Your task to perform on an android device: open app "Gmail" (install if not already installed) Image 0: 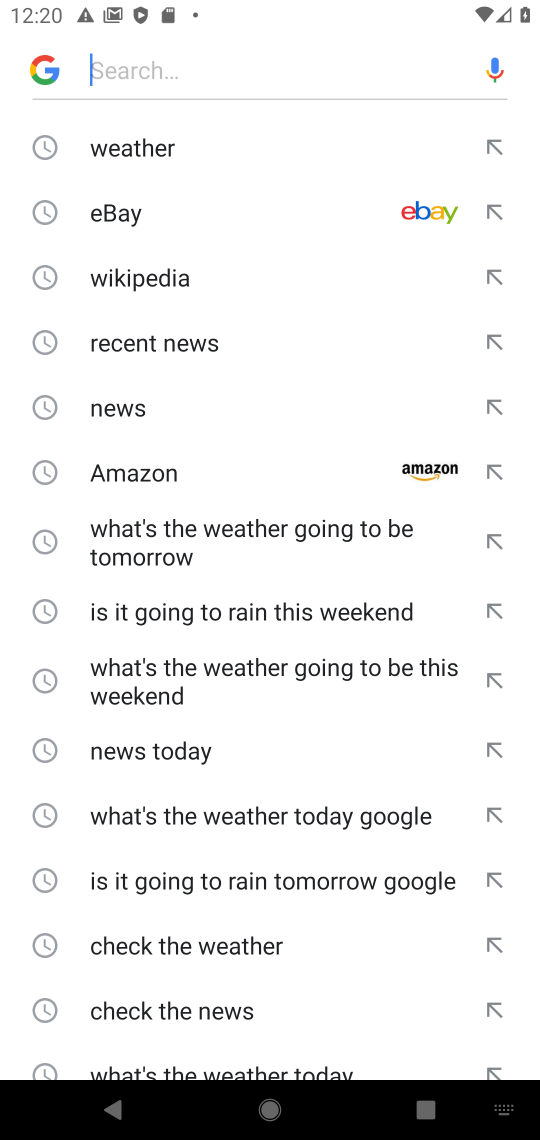
Step 0: press back button
Your task to perform on an android device: open app "Gmail" (install if not already installed) Image 1: 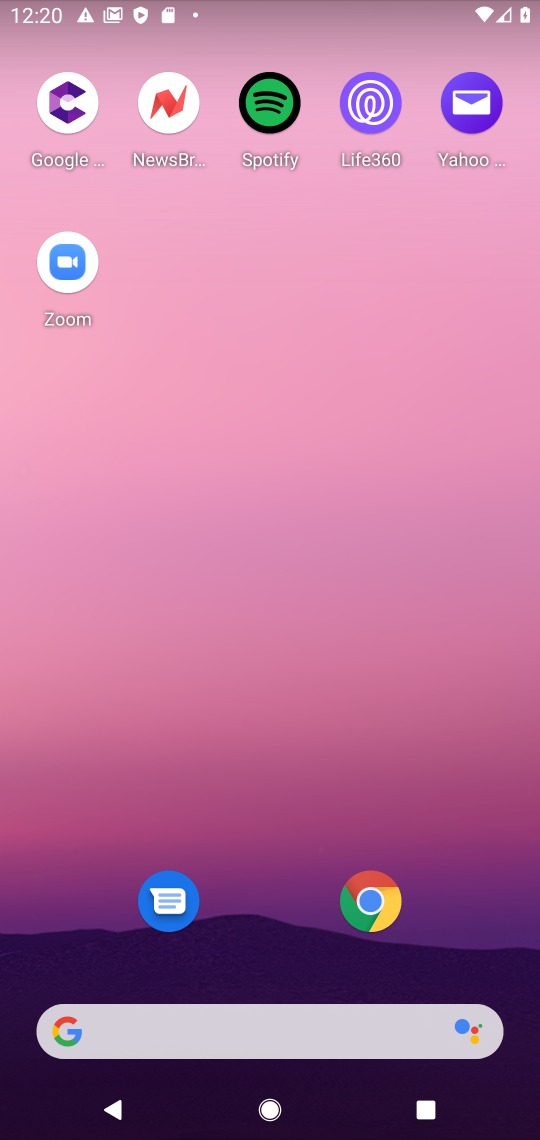
Step 1: drag from (253, 608) to (226, 187)
Your task to perform on an android device: open app "Gmail" (install if not already installed) Image 2: 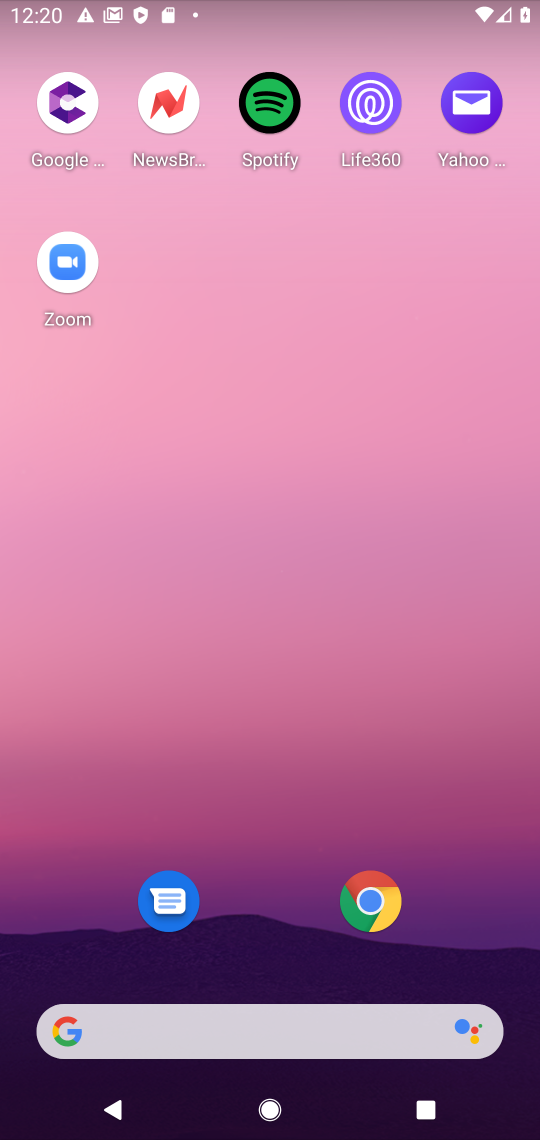
Step 2: drag from (275, 1034) to (241, 30)
Your task to perform on an android device: open app "Gmail" (install if not already installed) Image 3: 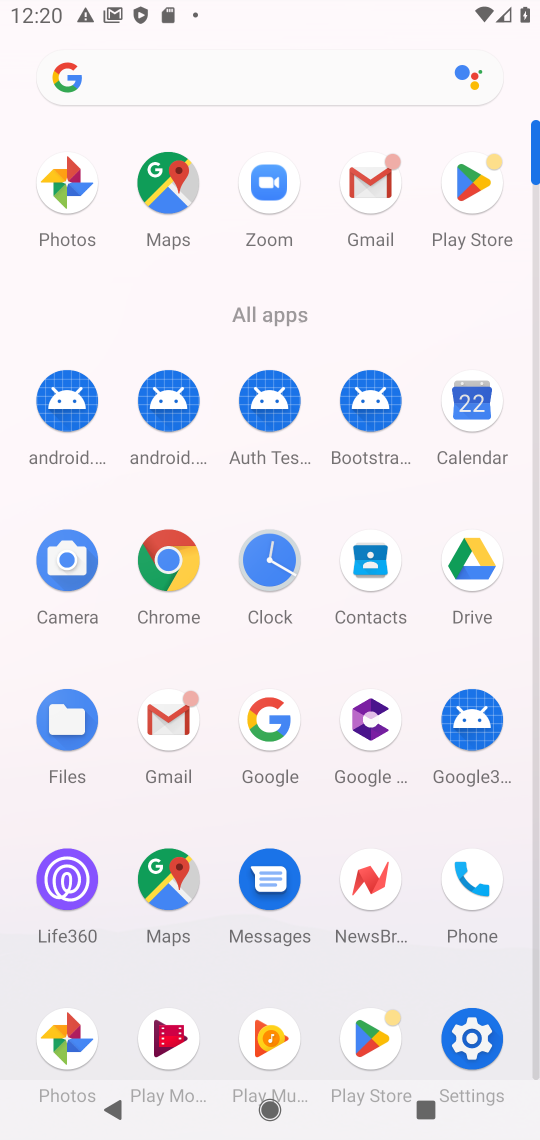
Step 3: click (370, 182)
Your task to perform on an android device: open app "Gmail" (install if not already installed) Image 4: 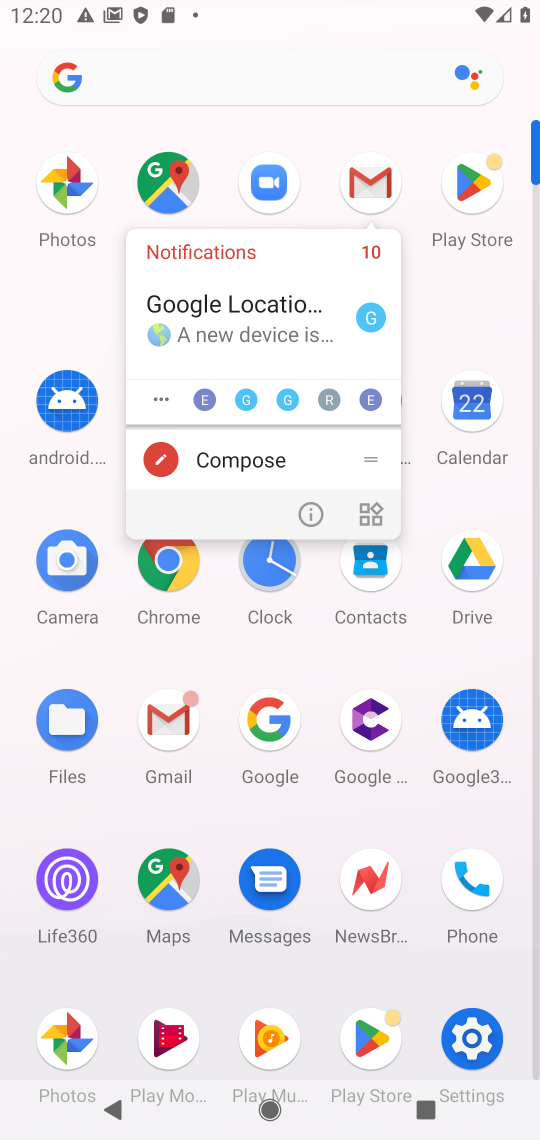
Step 4: click (370, 182)
Your task to perform on an android device: open app "Gmail" (install if not already installed) Image 5: 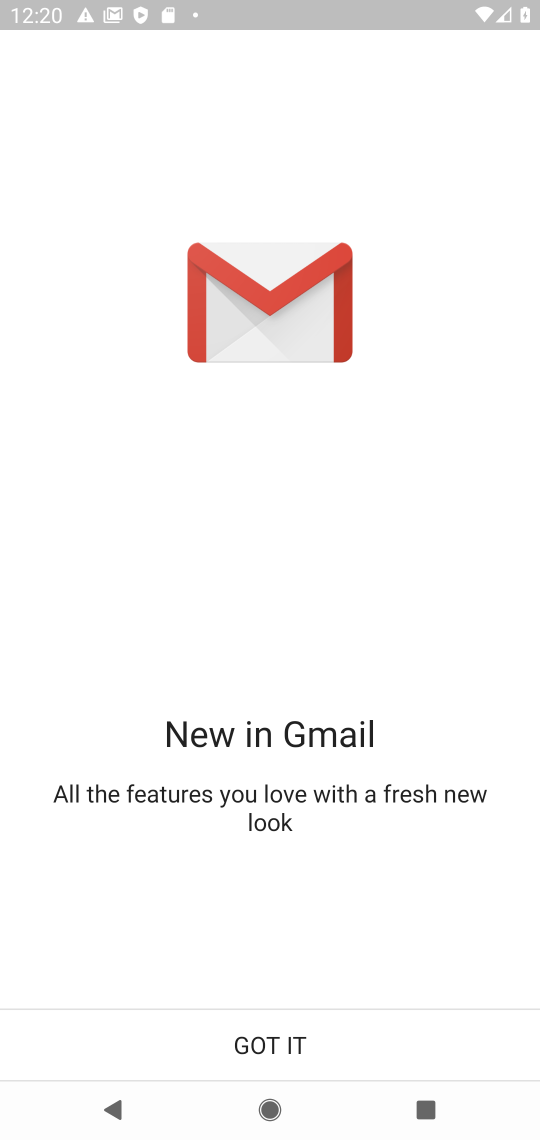
Step 5: click (305, 1058)
Your task to perform on an android device: open app "Gmail" (install if not already installed) Image 6: 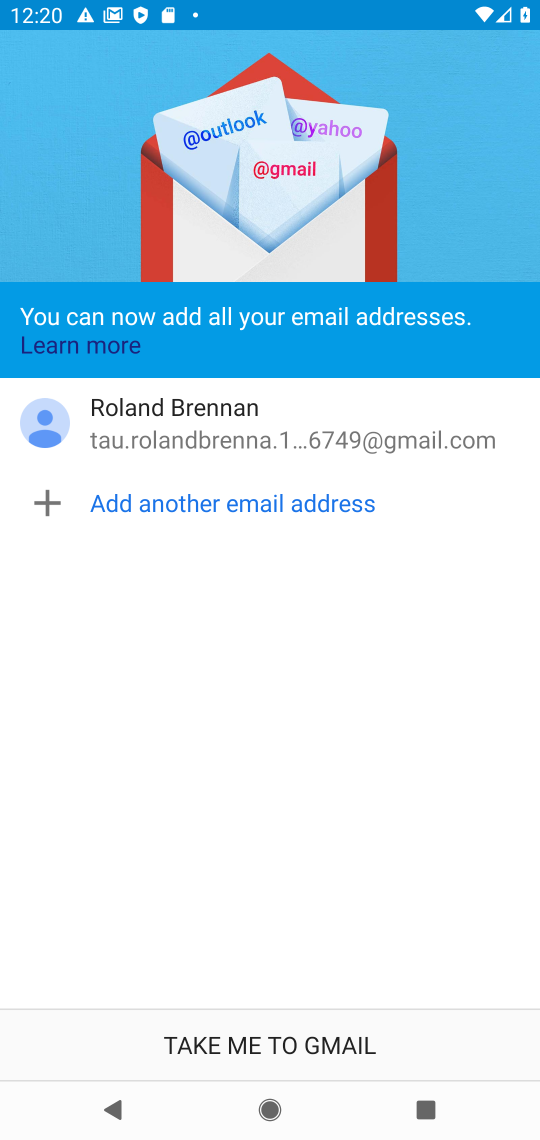
Step 6: click (305, 1058)
Your task to perform on an android device: open app "Gmail" (install if not already installed) Image 7: 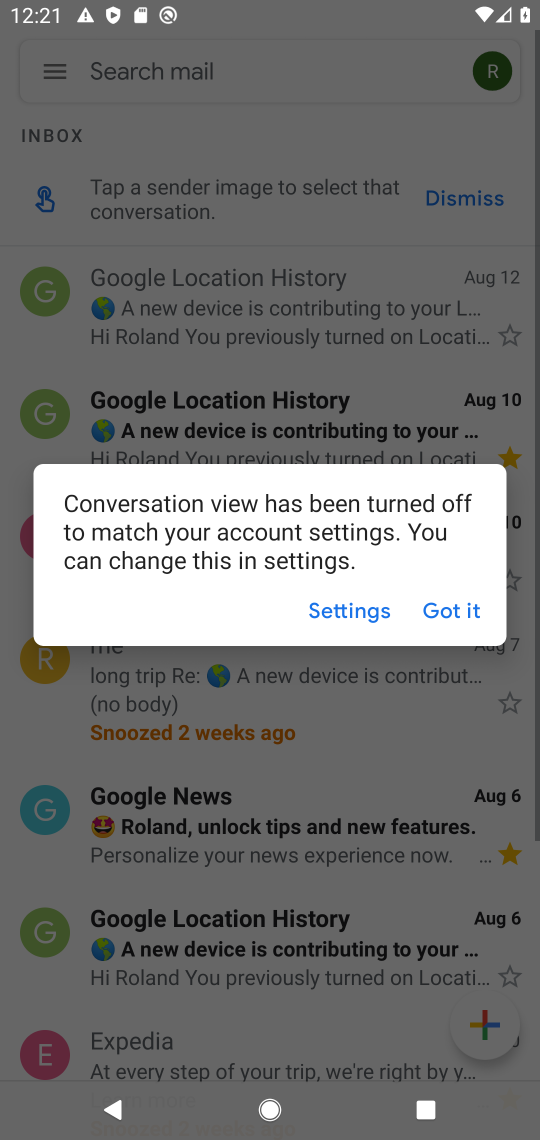
Step 7: click (446, 608)
Your task to perform on an android device: open app "Gmail" (install if not already installed) Image 8: 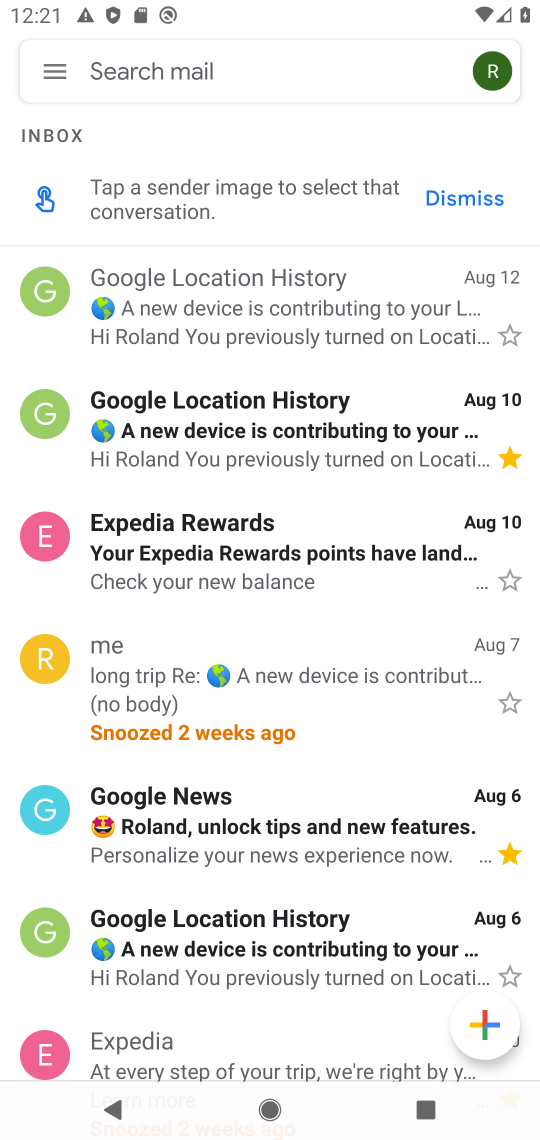
Step 8: task complete